Your task to perform on an android device: Open Google Chrome and open the bookmarks view Image 0: 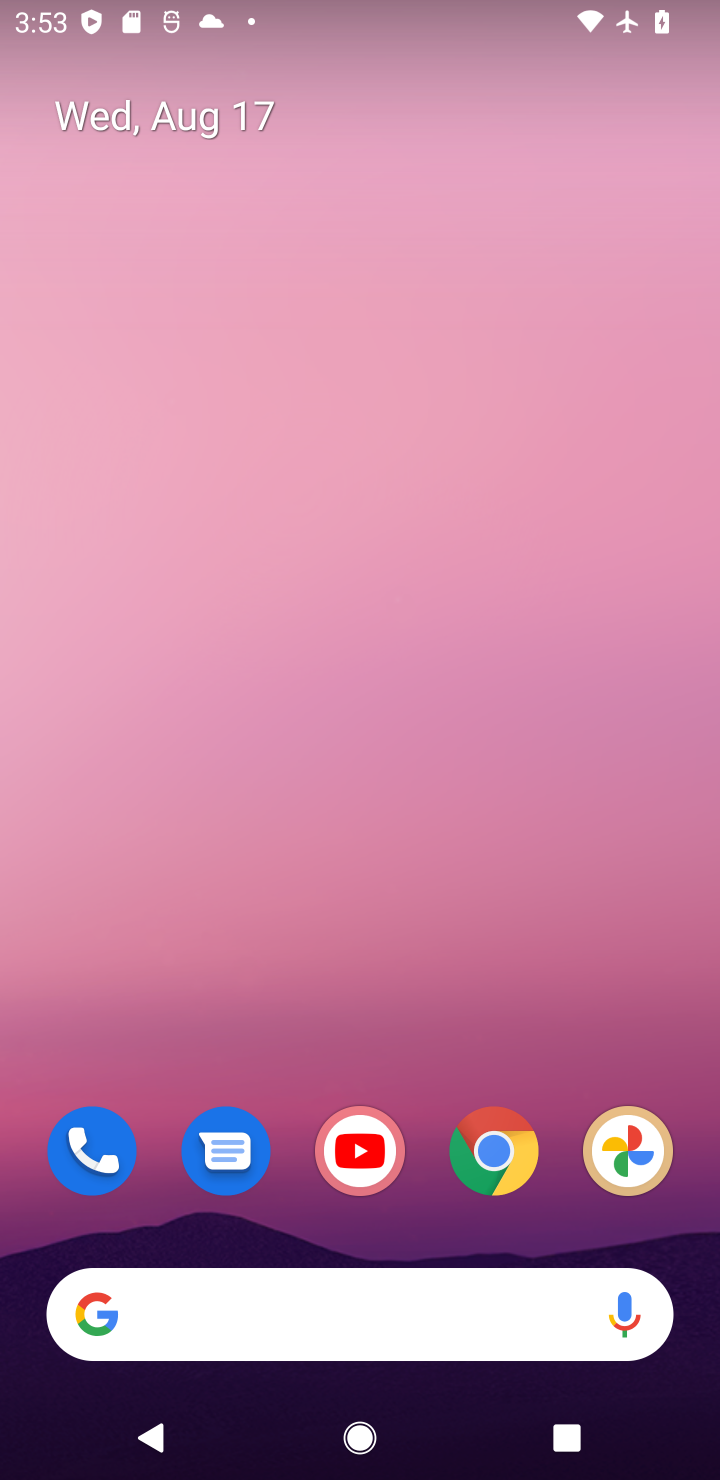
Step 0: drag from (214, 1252) to (373, 310)
Your task to perform on an android device: Open Google Chrome and open the bookmarks view Image 1: 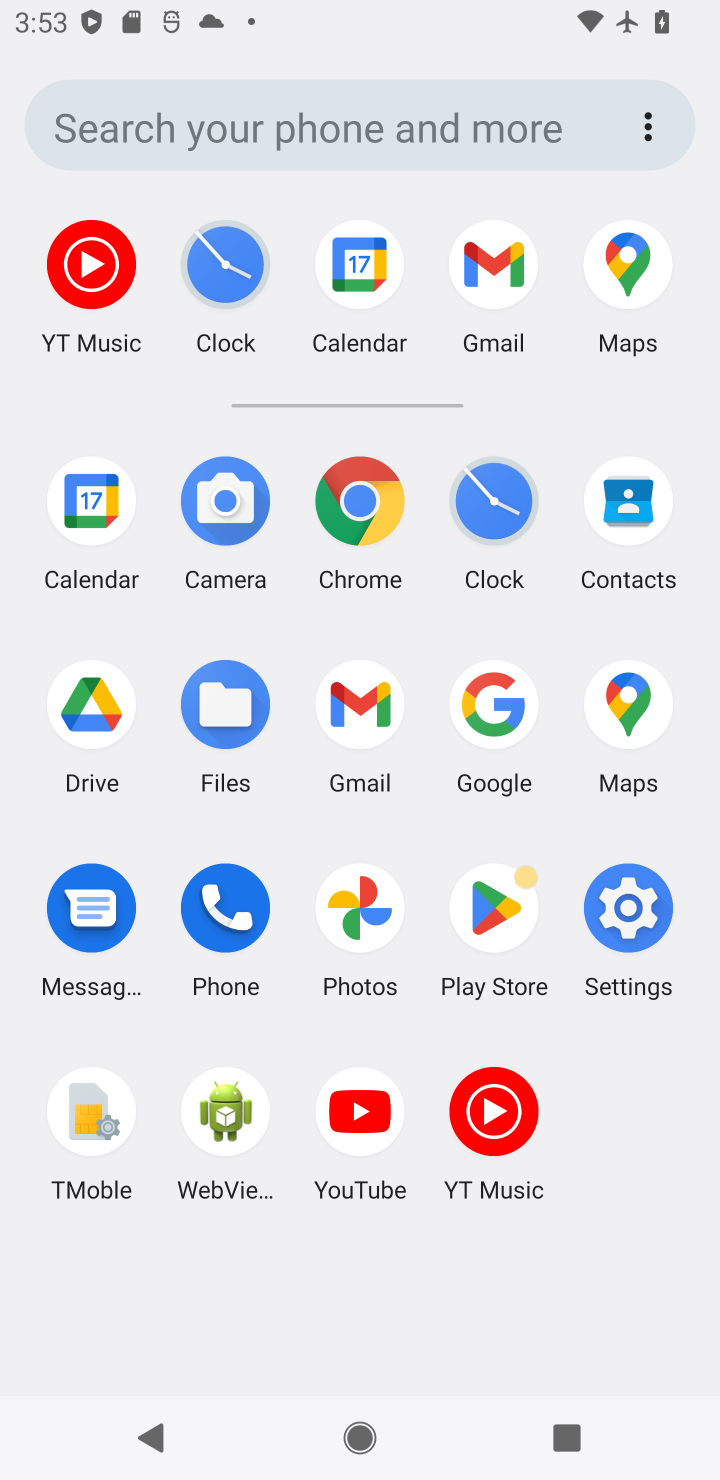
Step 1: click (374, 512)
Your task to perform on an android device: Open Google Chrome and open the bookmarks view Image 2: 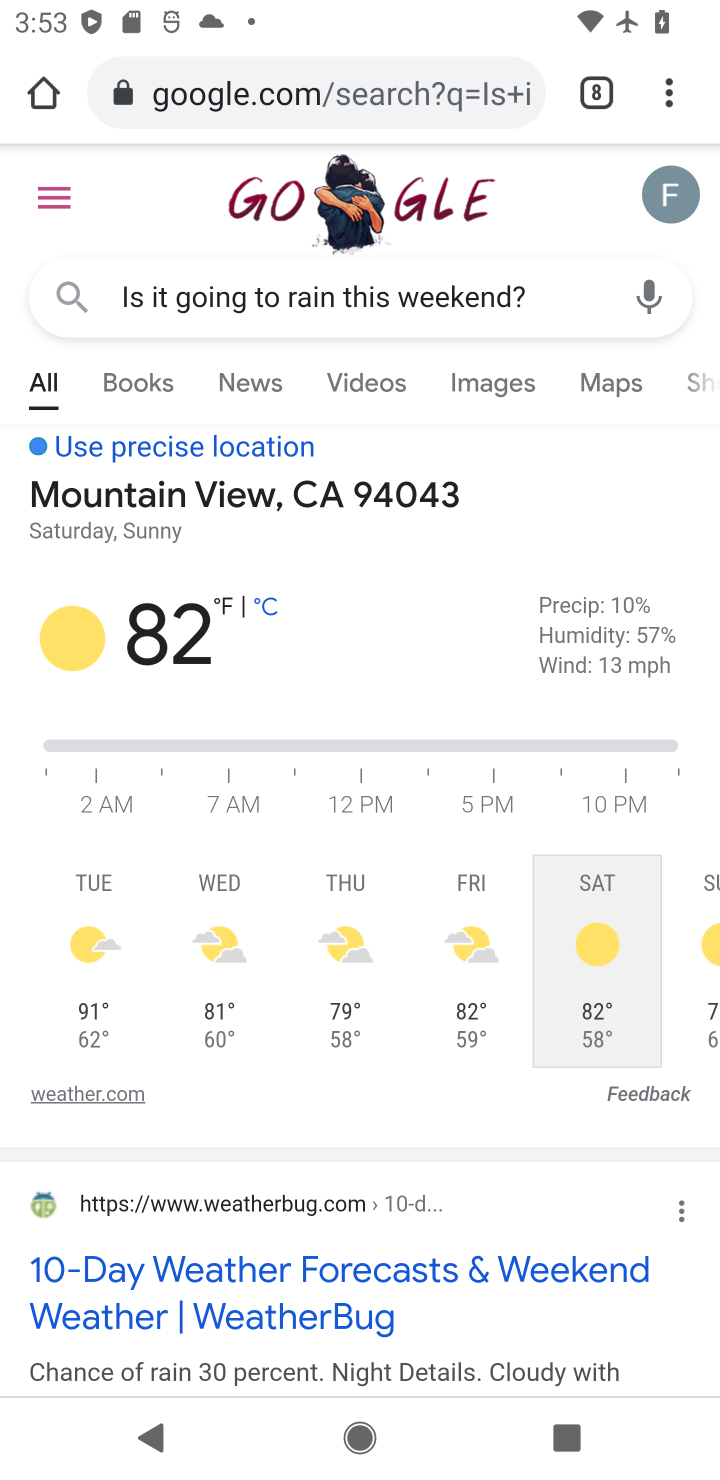
Step 2: click (672, 71)
Your task to perform on an android device: Open Google Chrome and open the bookmarks view Image 3: 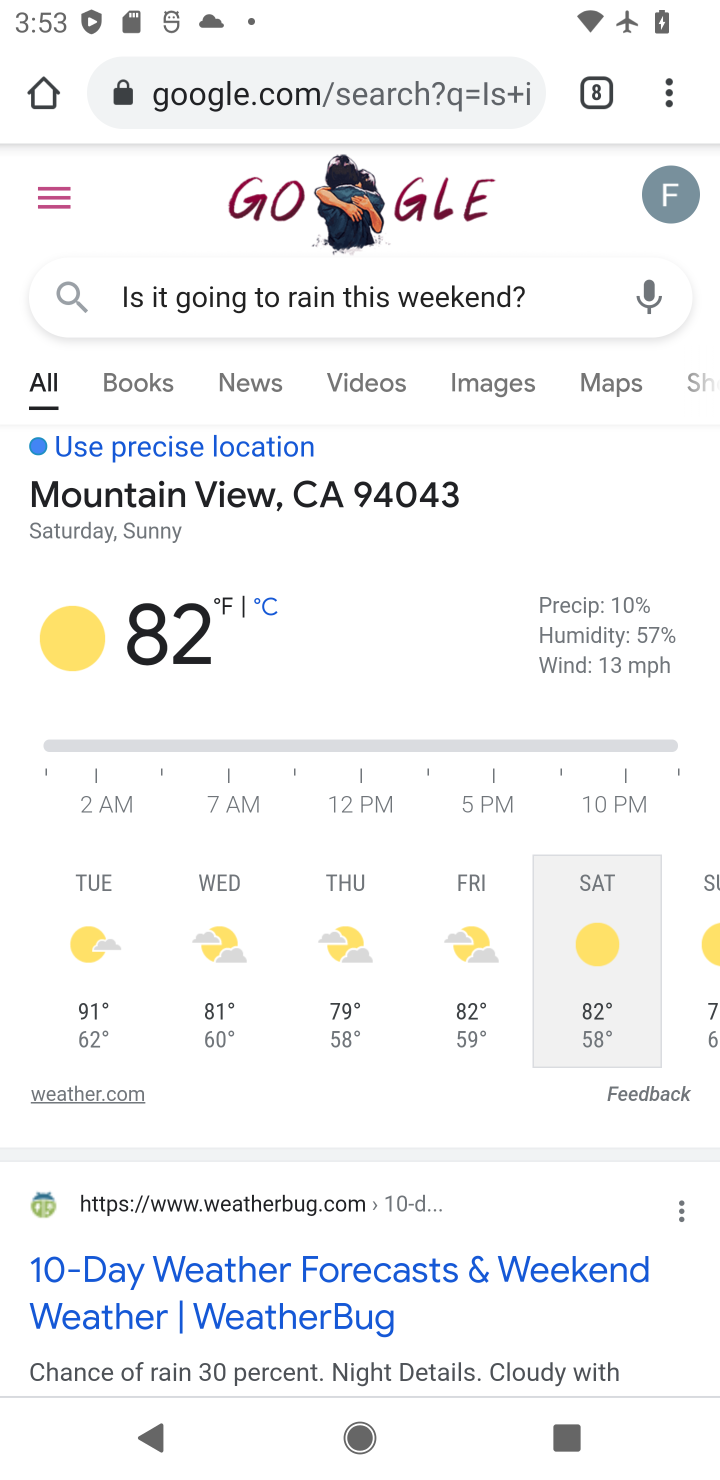
Step 3: click (653, 92)
Your task to perform on an android device: Open Google Chrome and open the bookmarks view Image 4: 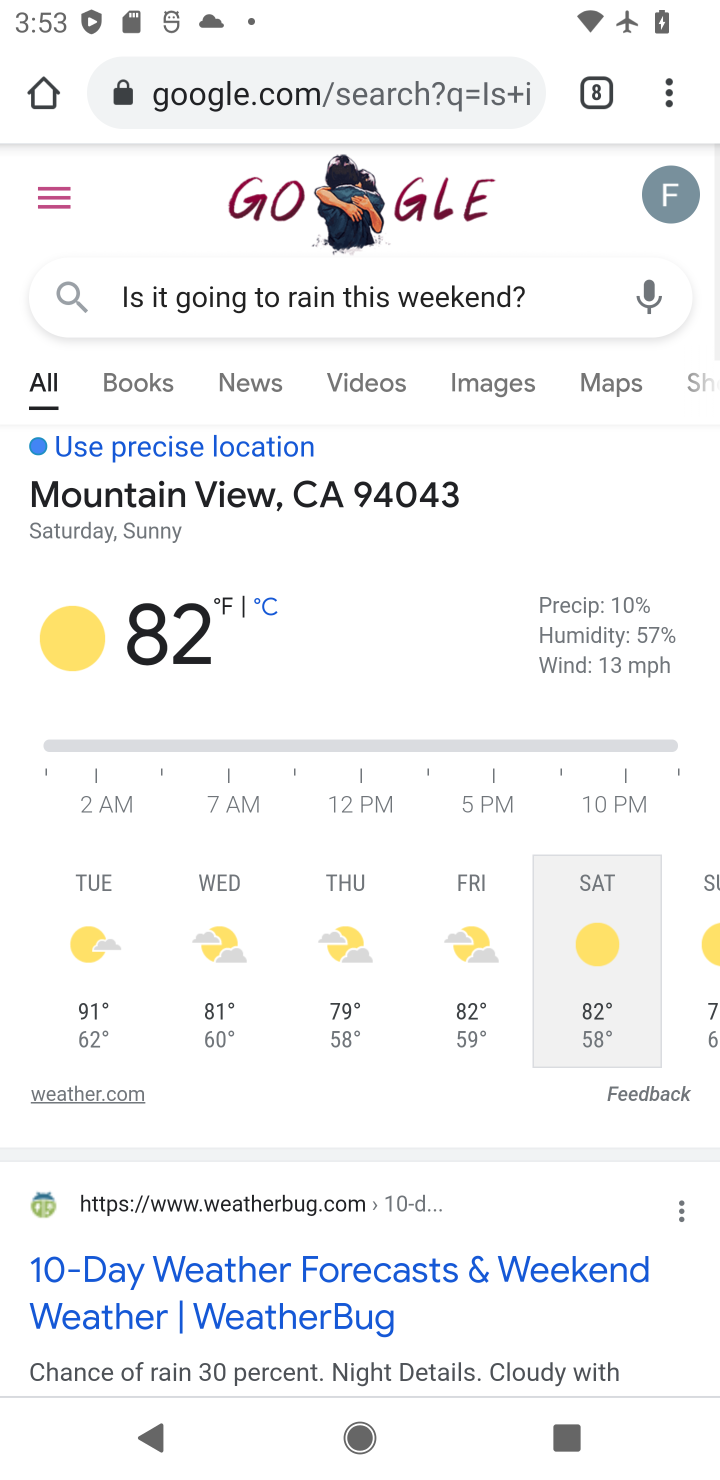
Step 4: click (653, 92)
Your task to perform on an android device: Open Google Chrome and open the bookmarks view Image 5: 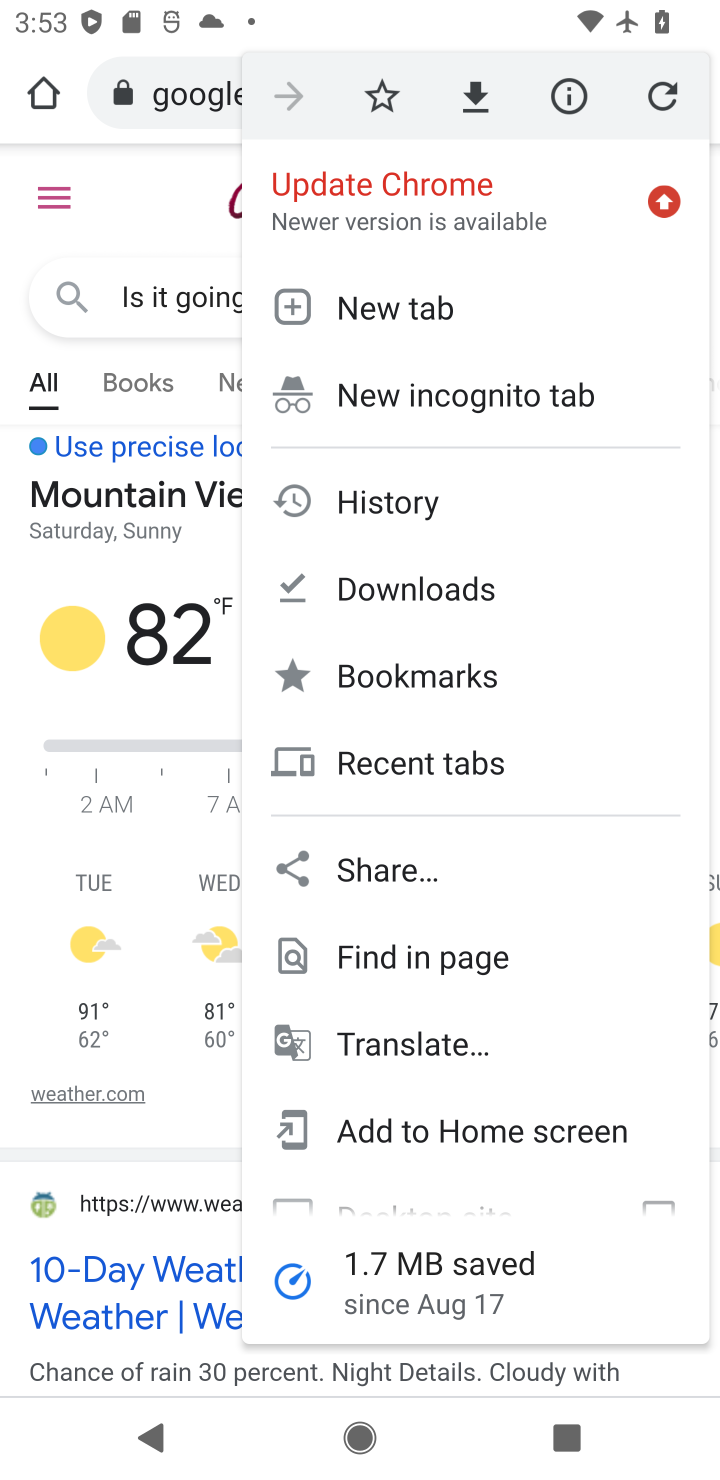
Step 5: click (381, 676)
Your task to perform on an android device: Open Google Chrome and open the bookmarks view Image 6: 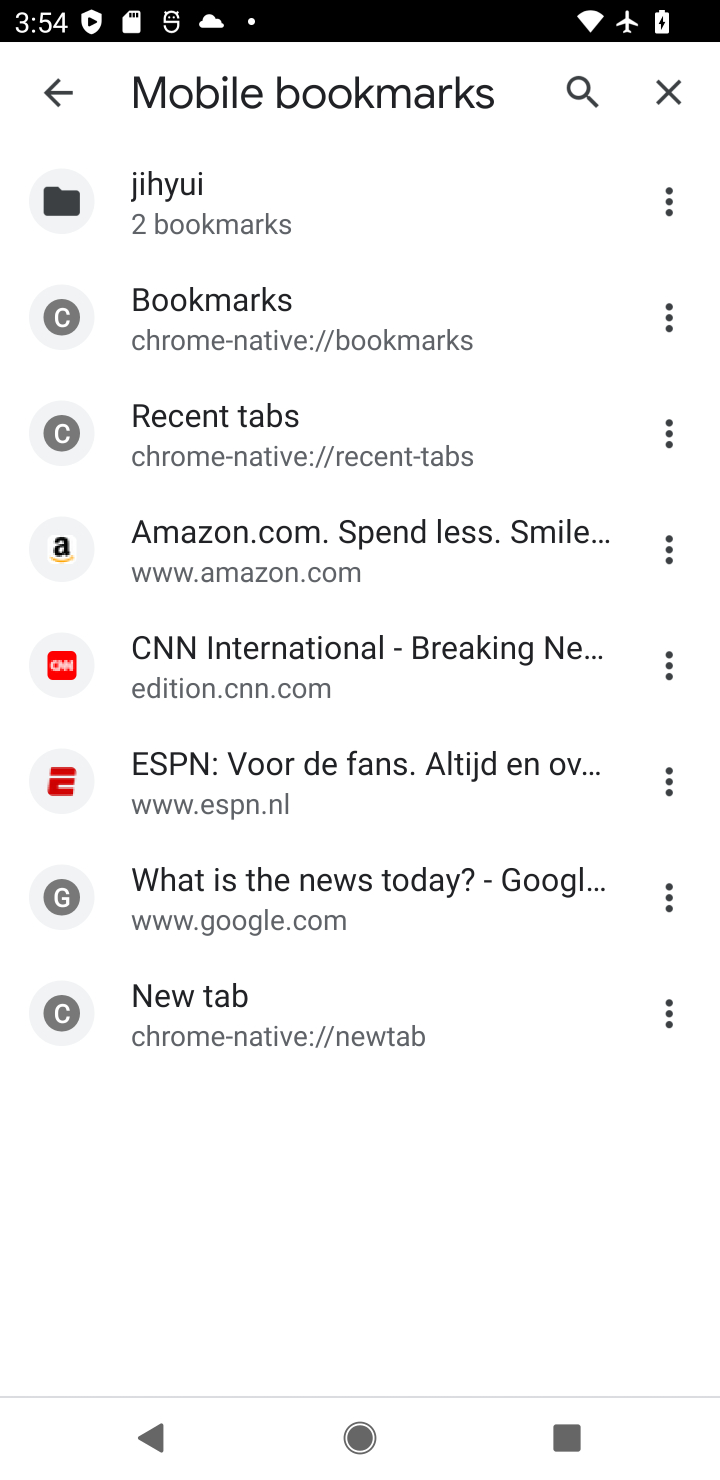
Step 6: task complete